Your task to perform on an android device: turn on location history Image 0: 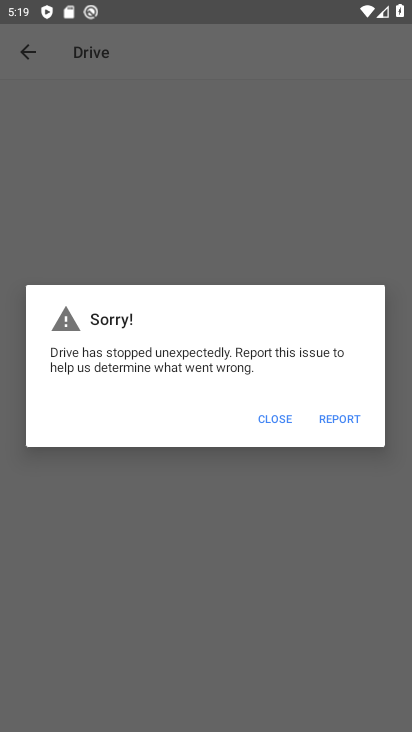
Step 0: press home button
Your task to perform on an android device: turn on location history Image 1: 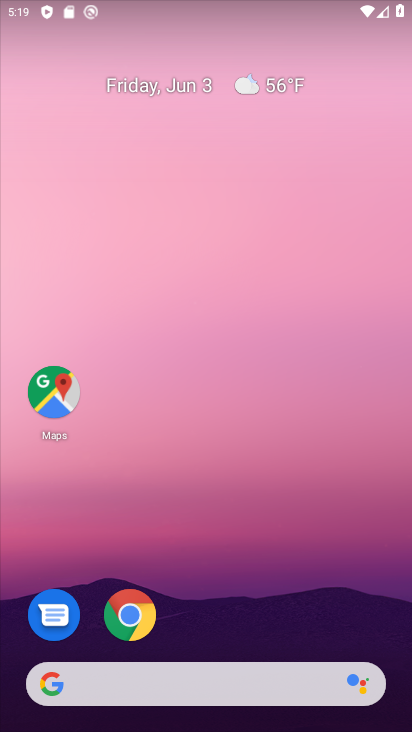
Step 1: drag from (268, 612) to (177, 70)
Your task to perform on an android device: turn on location history Image 2: 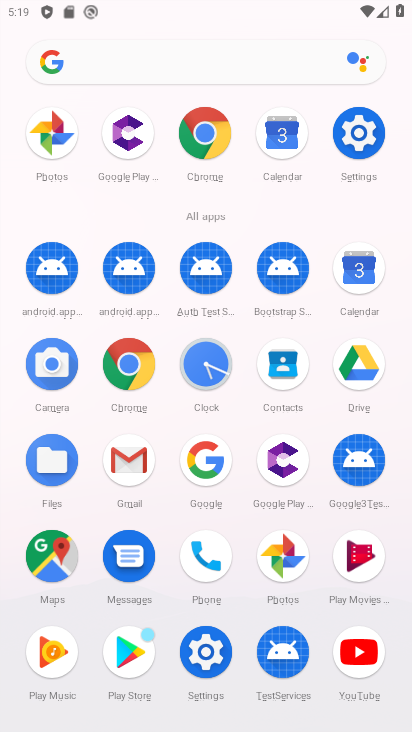
Step 2: click (357, 130)
Your task to perform on an android device: turn on location history Image 3: 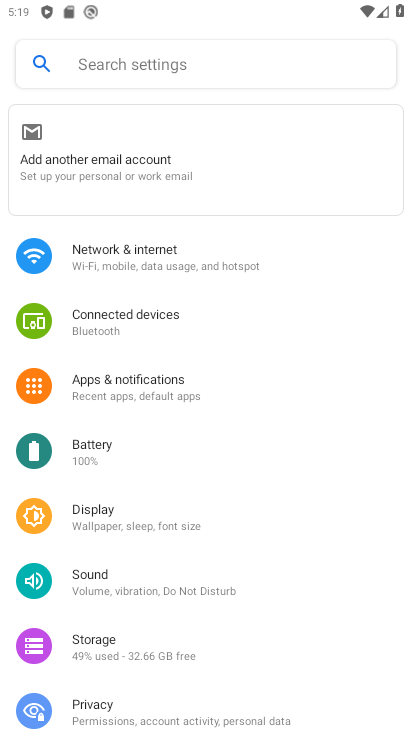
Step 3: drag from (113, 485) to (124, 303)
Your task to perform on an android device: turn on location history Image 4: 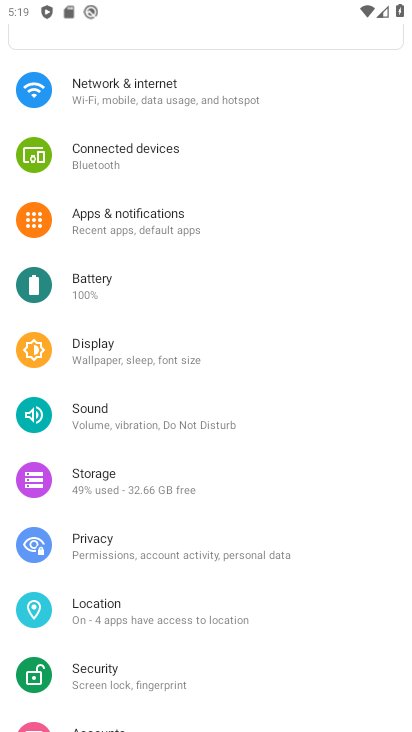
Step 4: click (129, 620)
Your task to perform on an android device: turn on location history Image 5: 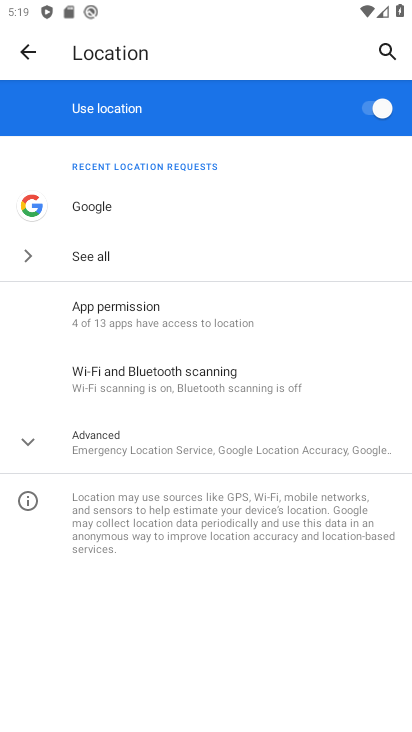
Step 5: click (191, 442)
Your task to perform on an android device: turn on location history Image 6: 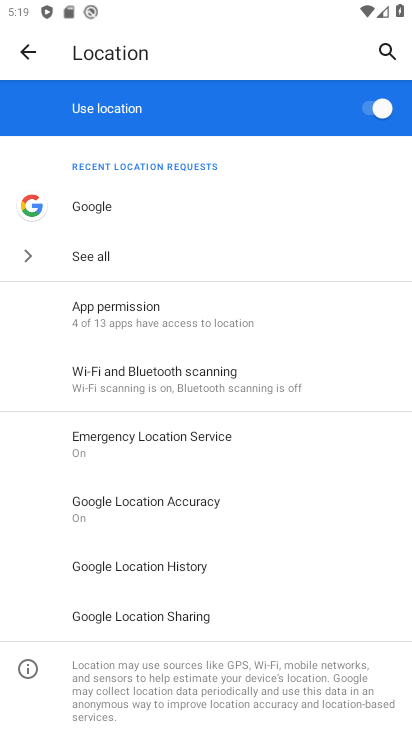
Step 6: click (157, 559)
Your task to perform on an android device: turn on location history Image 7: 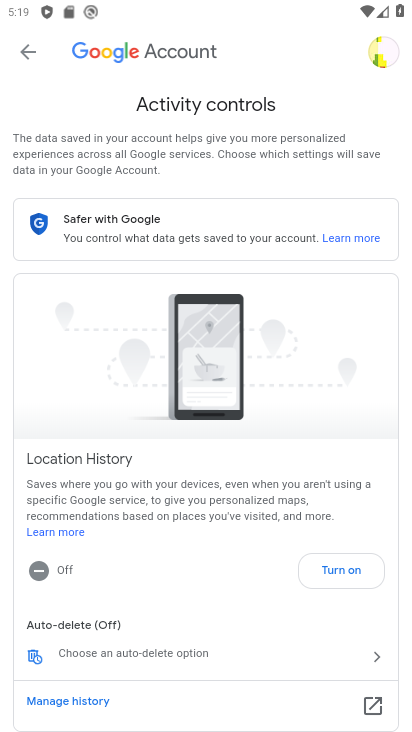
Step 7: click (339, 575)
Your task to perform on an android device: turn on location history Image 8: 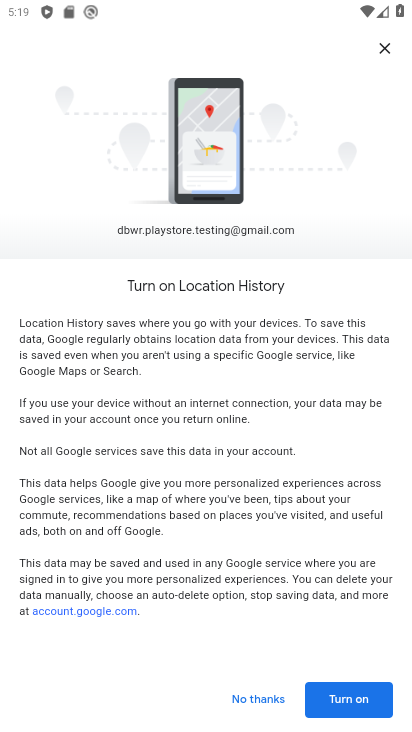
Step 8: click (362, 693)
Your task to perform on an android device: turn on location history Image 9: 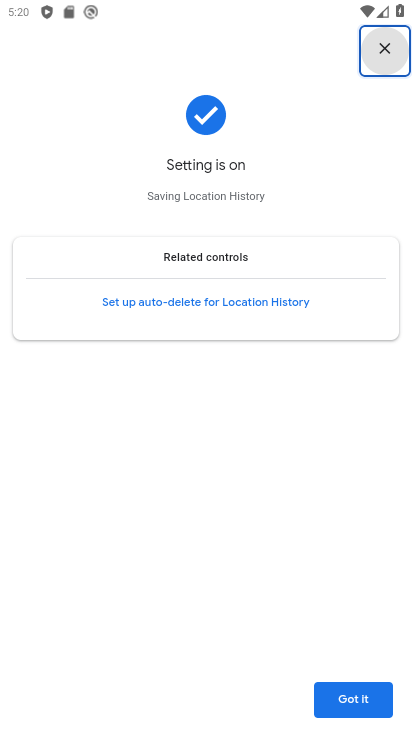
Step 9: click (362, 694)
Your task to perform on an android device: turn on location history Image 10: 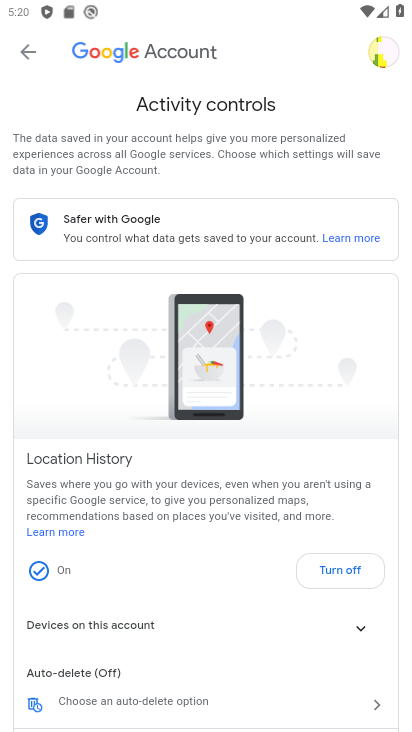
Step 10: task complete